Your task to perform on an android device: turn on improve location accuracy Image 0: 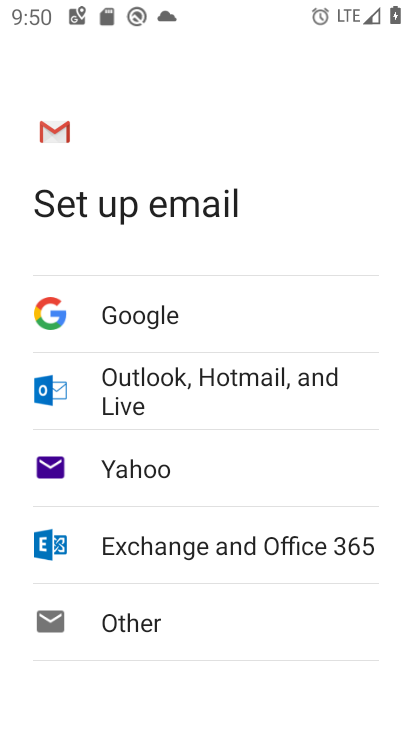
Step 0: press home button
Your task to perform on an android device: turn on improve location accuracy Image 1: 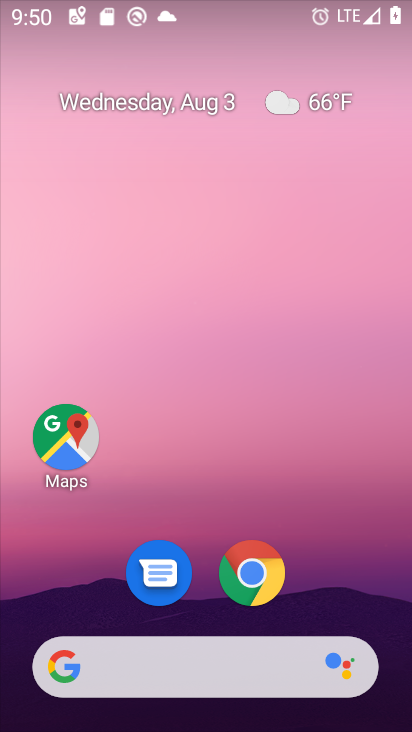
Step 1: drag from (324, 611) to (329, 7)
Your task to perform on an android device: turn on improve location accuracy Image 2: 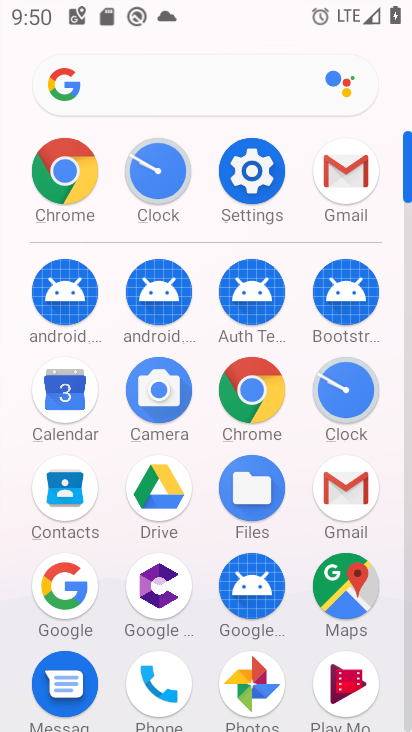
Step 2: click (247, 171)
Your task to perform on an android device: turn on improve location accuracy Image 3: 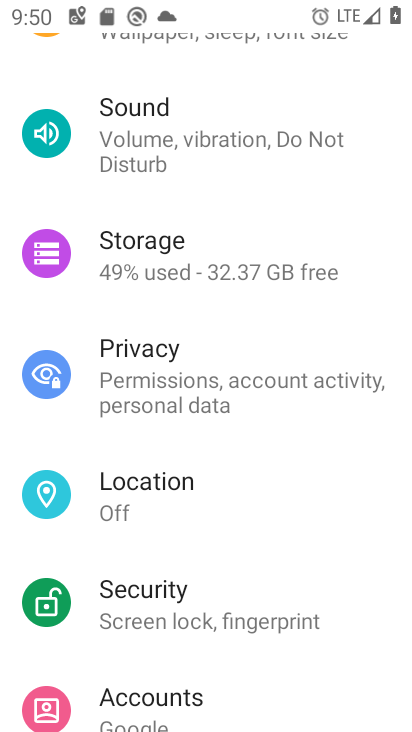
Step 3: click (134, 498)
Your task to perform on an android device: turn on improve location accuracy Image 4: 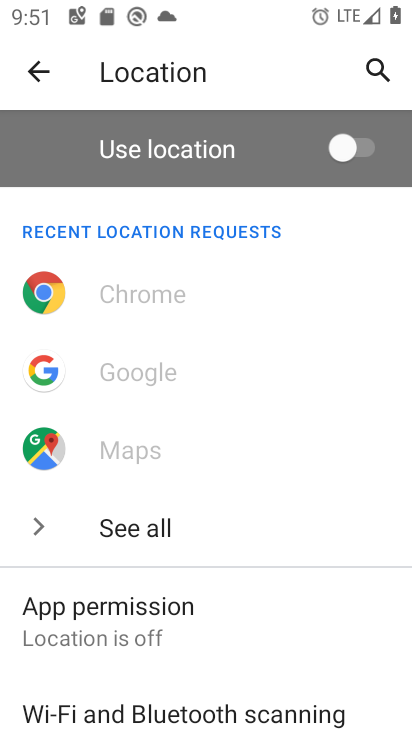
Step 4: drag from (223, 619) to (198, 158)
Your task to perform on an android device: turn on improve location accuracy Image 5: 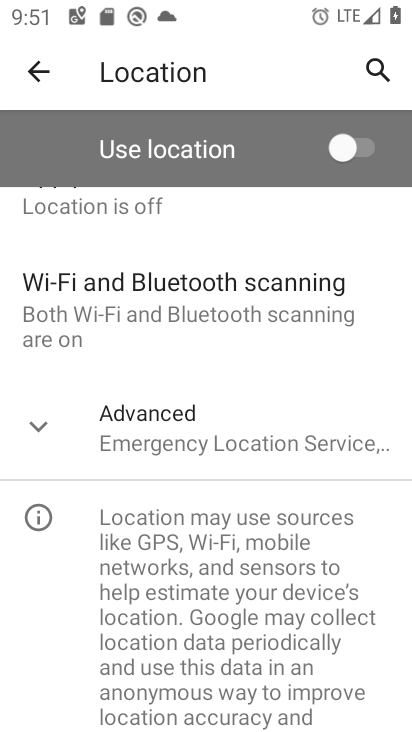
Step 5: click (40, 426)
Your task to perform on an android device: turn on improve location accuracy Image 6: 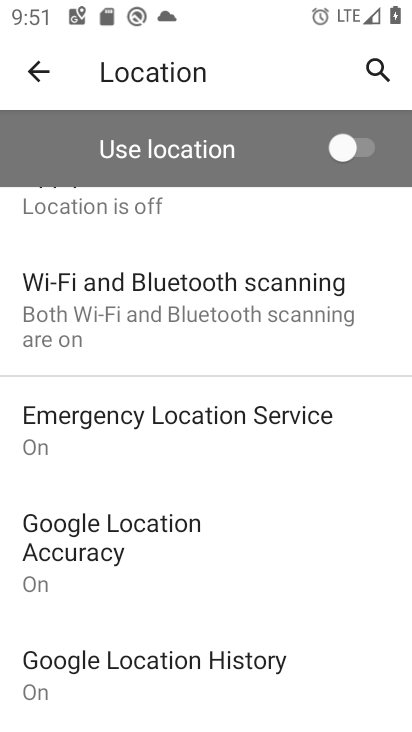
Step 6: click (132, 529)
Your task to perform on an android device: turn on improve location accuracy Image 7: 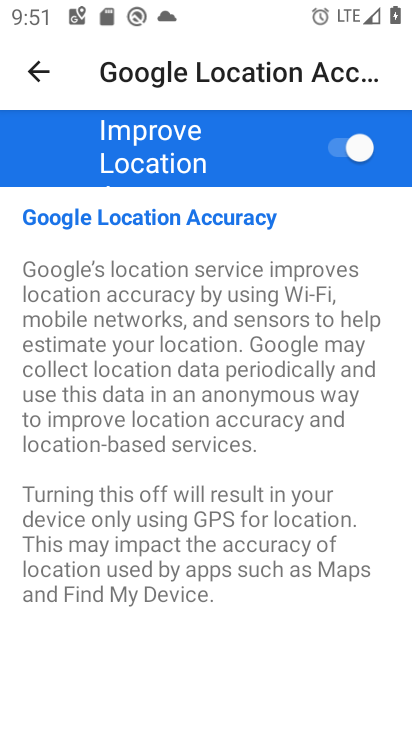
Step 7: task complete